Your task to perform on an android device: Open the map Image 0: 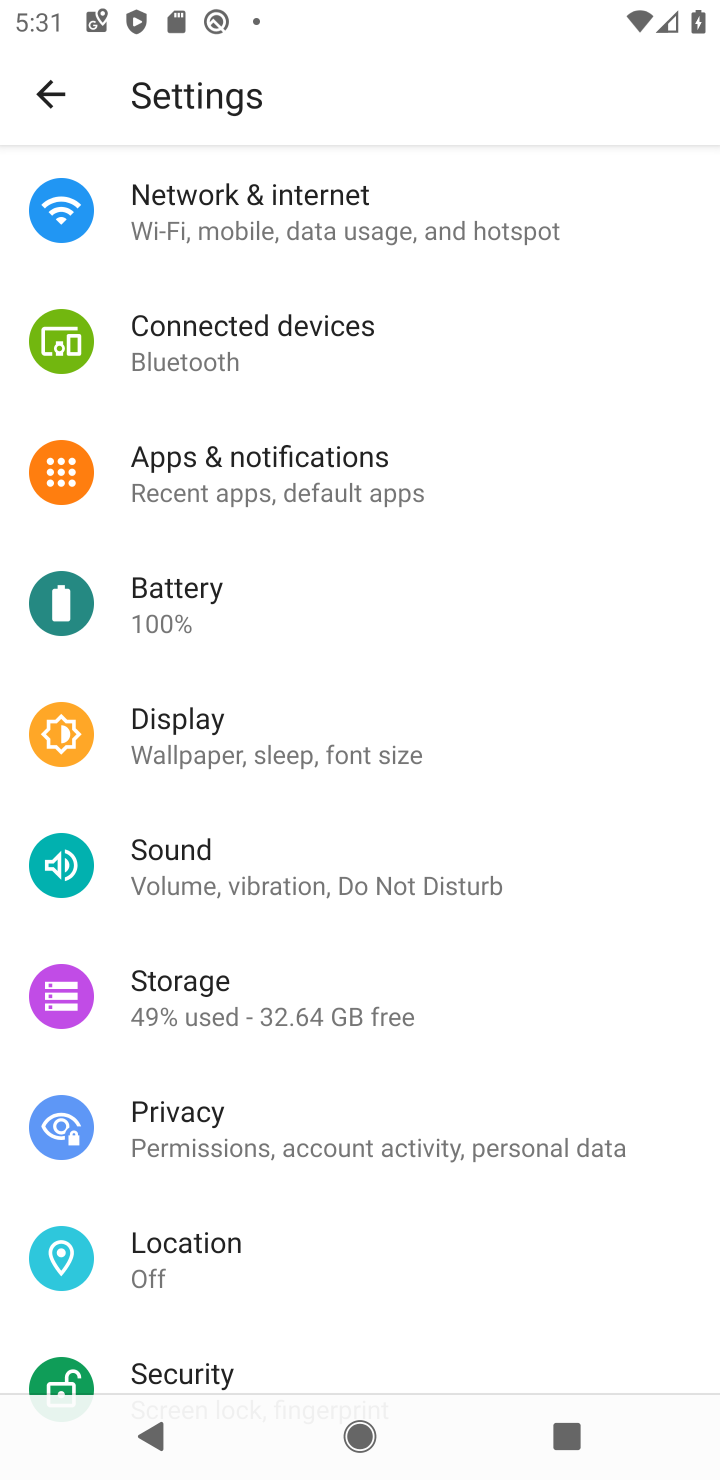
Step 0: press home button
Your task to perform on an android device: Open the map Image 1: 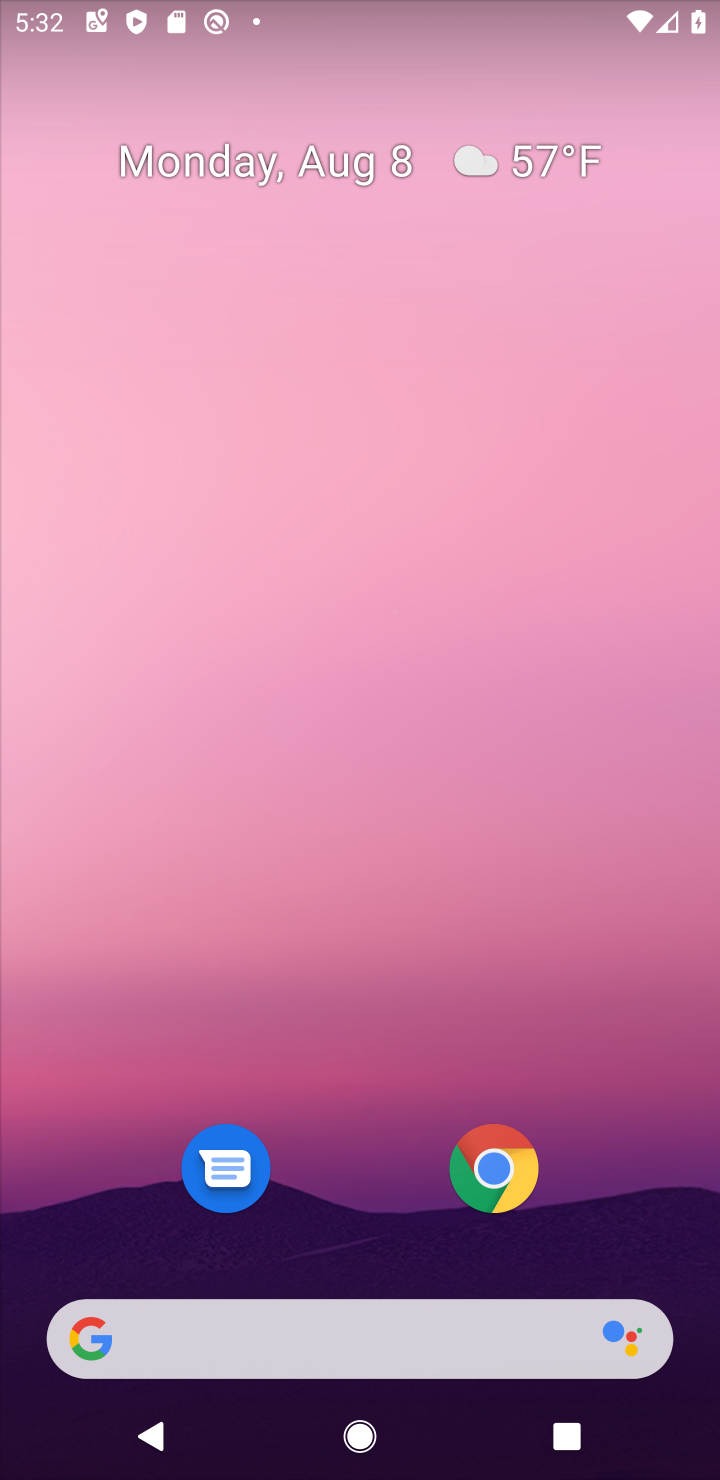
Step 1: drag from (279, 658) to (0, 236)
Your task to perform on an android device: Open the map Image 2: 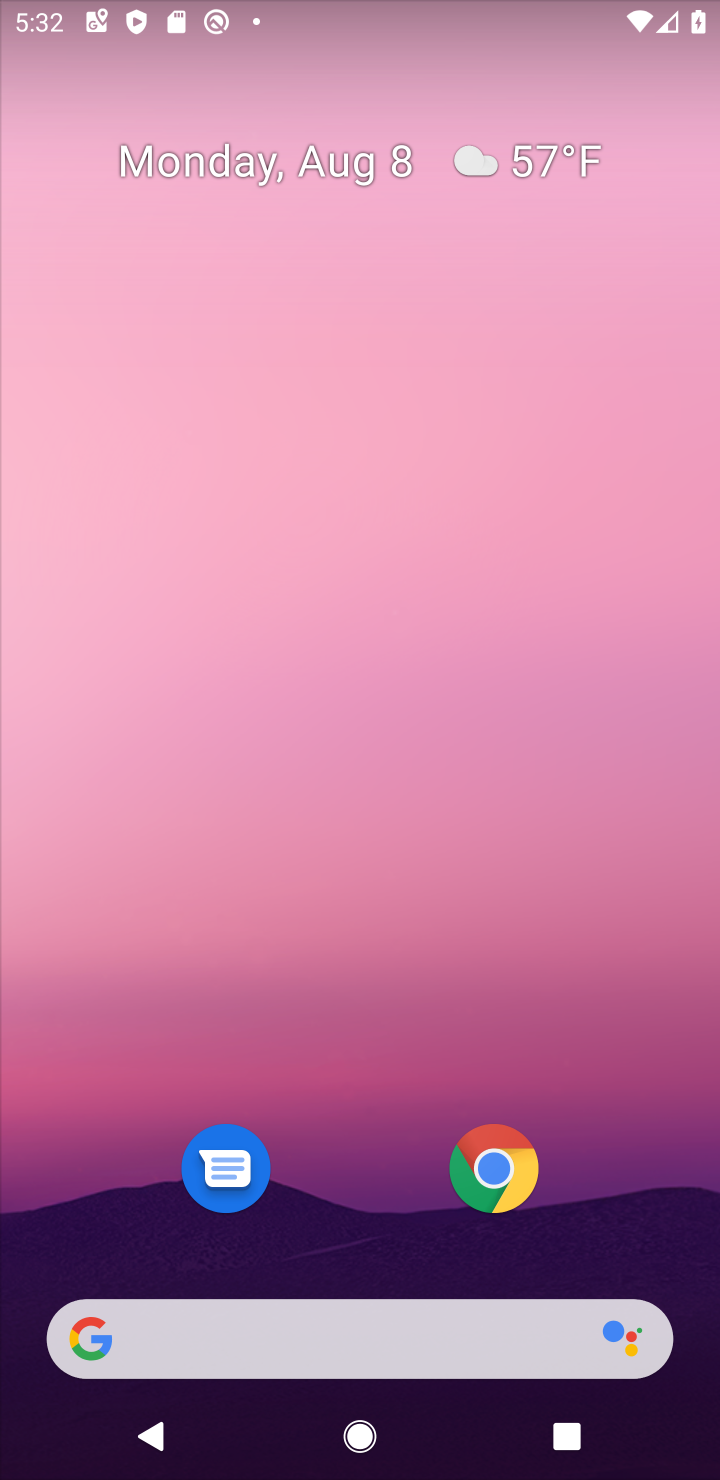
Step 2: drag from (345, 1344) to (209, 215)
Your task to perform on an android device: Open the map Image 3: 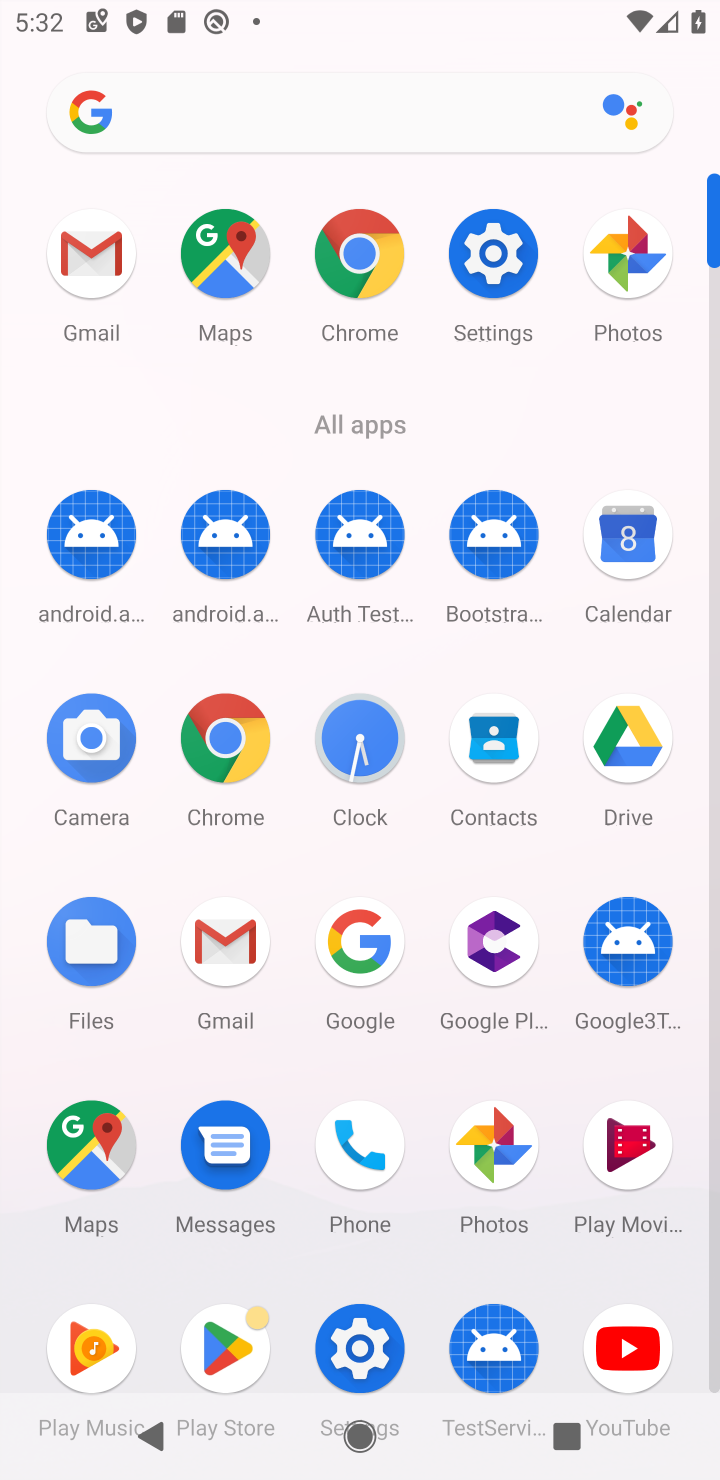
Step 3: click (111, 1120)
Your task to perform on an android device: Open the map Image 4: 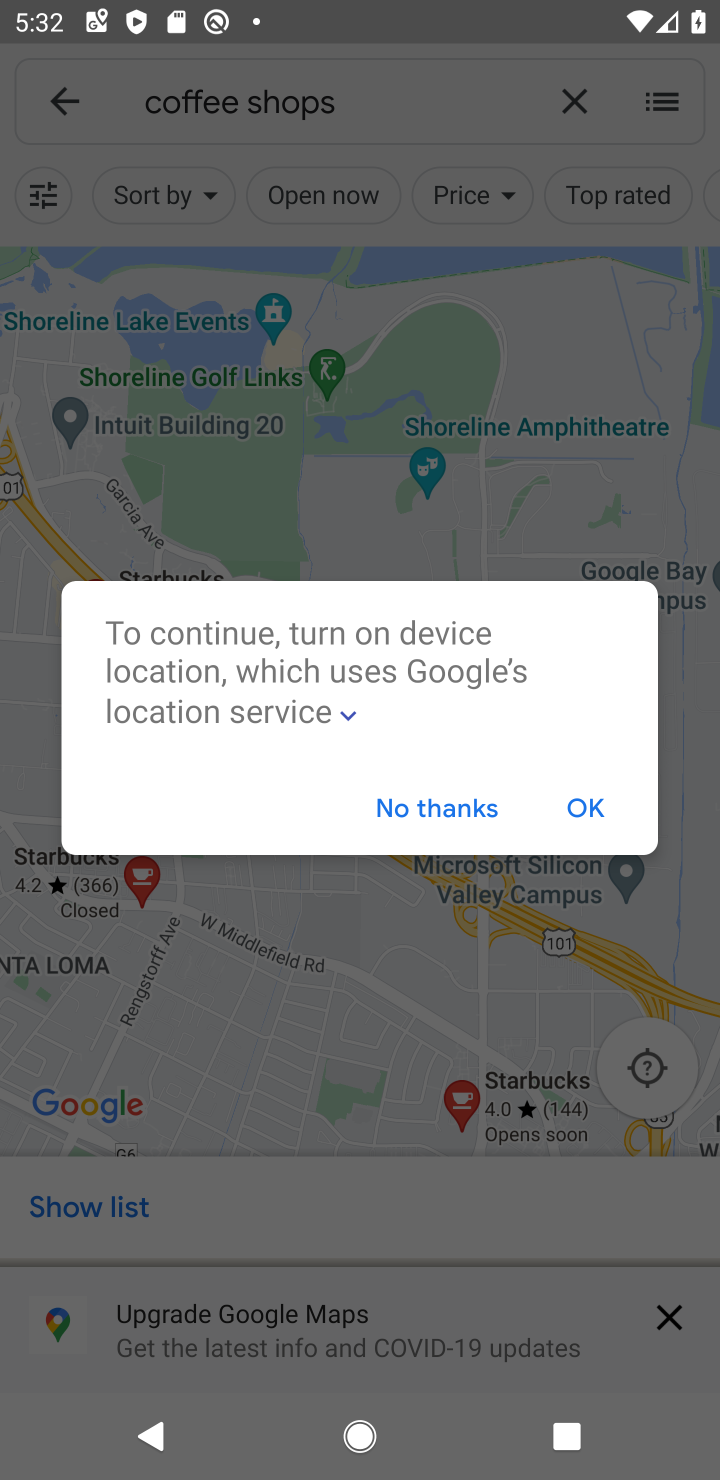
Step 4: click (578, 825)
Your task to perform on an android device: Open the map Image 5: 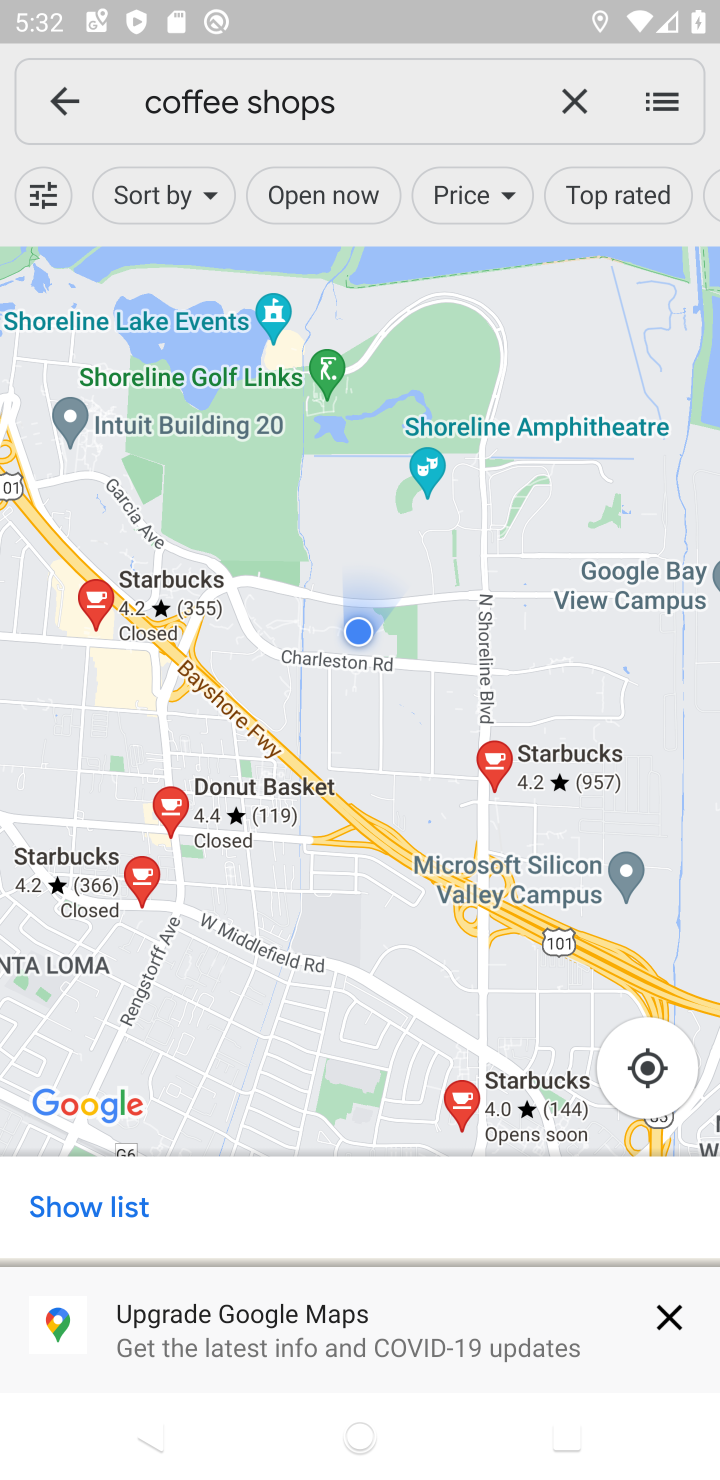
Step 5: task complete